Your task to perform on an android device: Search for Mexican restaurants on Maps Image 0: 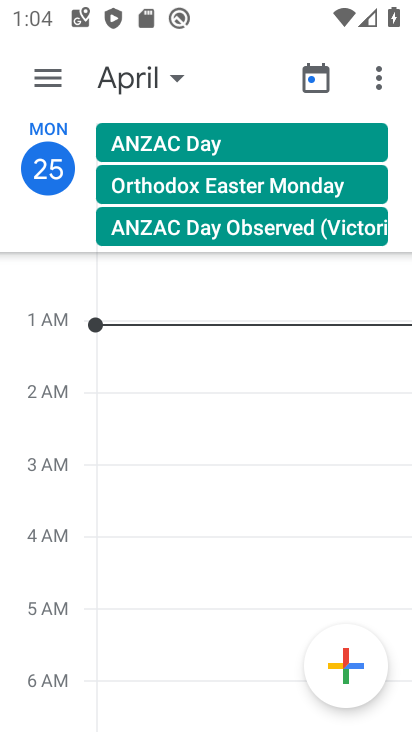
Step 0: press home button
Your task to perform on an android device: Search for Mexican restaurants on Maps Image 1: 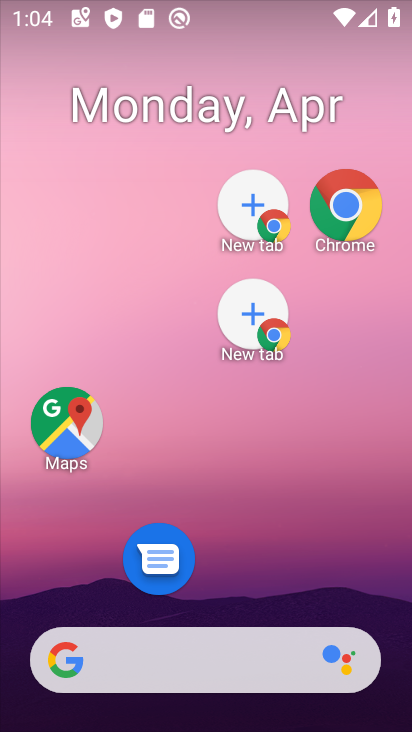
Step 1: click (67, 397)
Your task to perform on an android device: Search for Mexican restaurants on Maps Image 2: 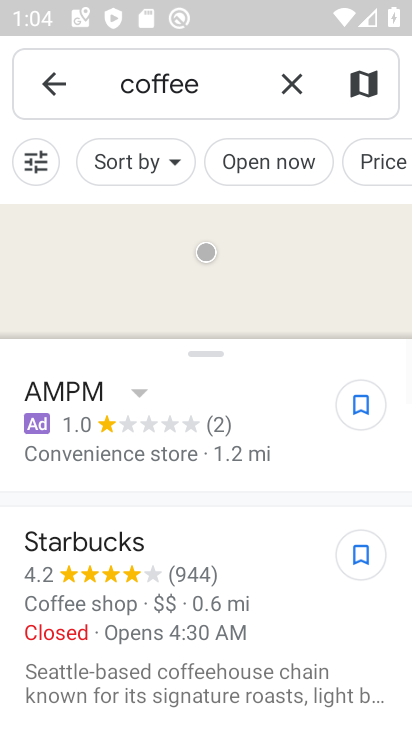
Step 2: click (290, 90)
Your task to perform on an android device: Search for Mexican restaurants on Maps Image 3: 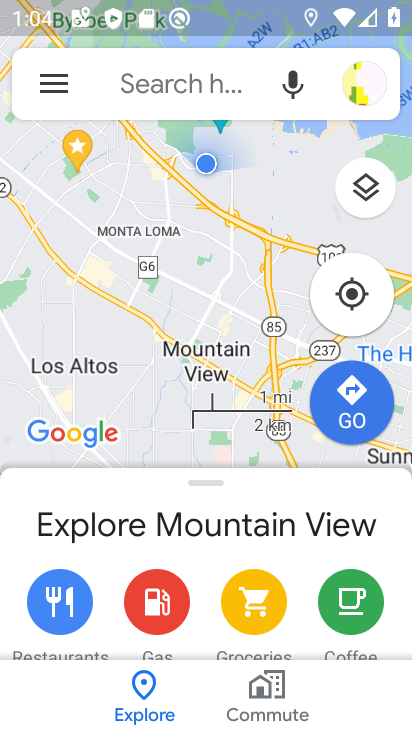
Step 3: click (228, 82)
Your task to perform on an android device: Search for Mexican restaurants on Maps Image 4: 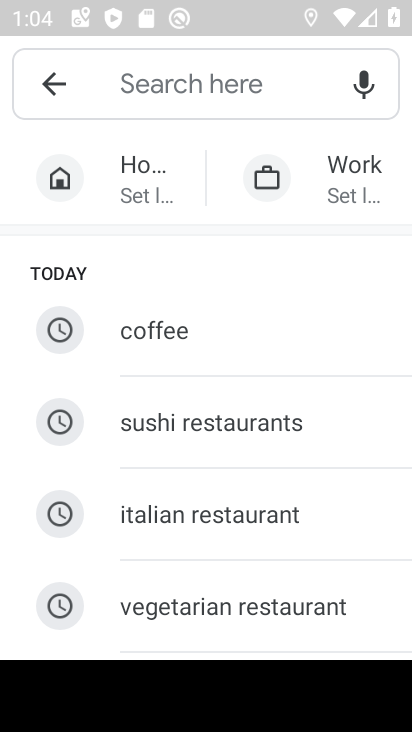
Step 4: drag from (250, 608) to (296, 285)
Your task to perform on an android device: Search for Mexican restaurants on Maps Image 5: 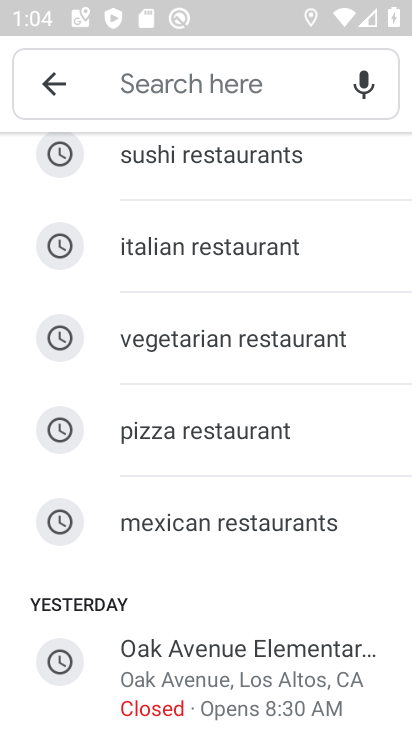
Step 5: click (192, 537)
Your task to perform on an android device: Search for Mexican restaurants on Maps Image 6: 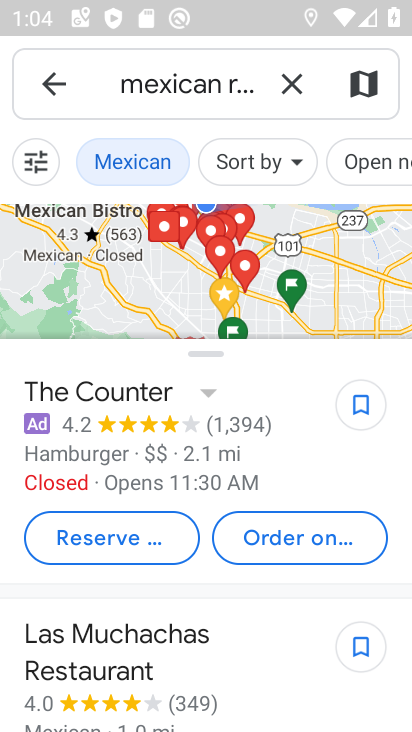
Step 6: task complete